Your task to perform on an android device: Go to eBay Image 0: 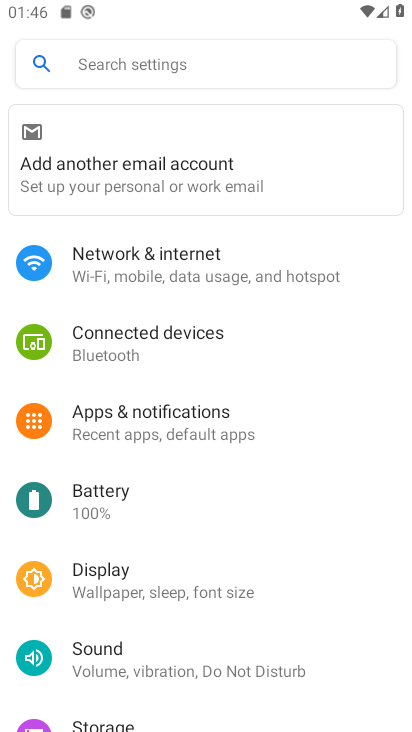
Step 0: press home button
Your task to perform on an android device: Go to eBay Image 1: 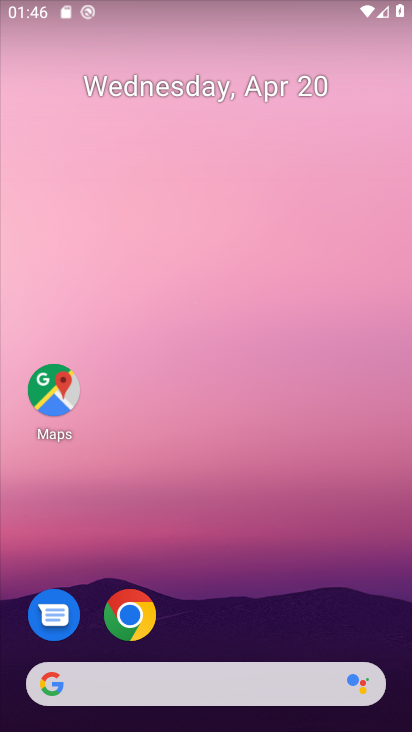
Step 1: click (122, 607)
Your task to perform on an android device: Go to eBay Image 2: 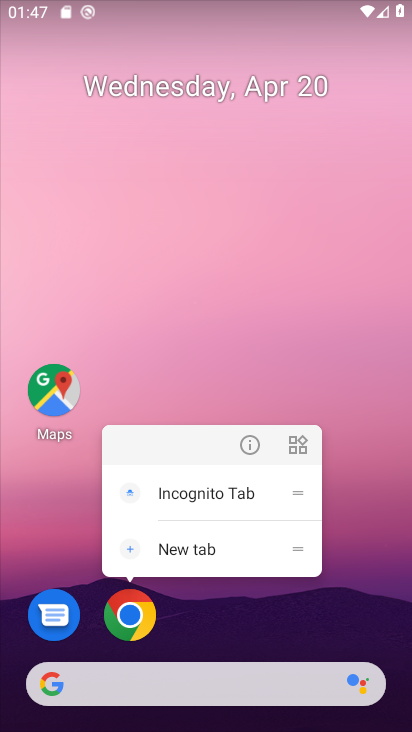
Step 2: click (131, 627)
Your task to perform on an android device: Go to eBay Image 3: 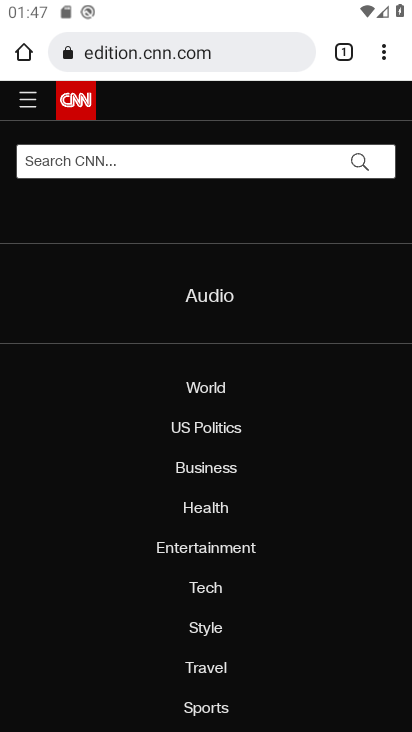
Step 3: click (295, 52)
Your task to perform on an android device: Go to eBay Image 4: 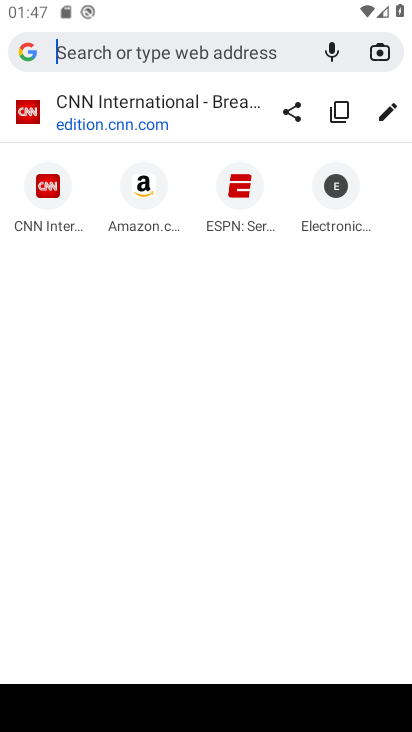
Step 4: type "eBay"
Your task to perform on an android device: Go to eBay Image 5: 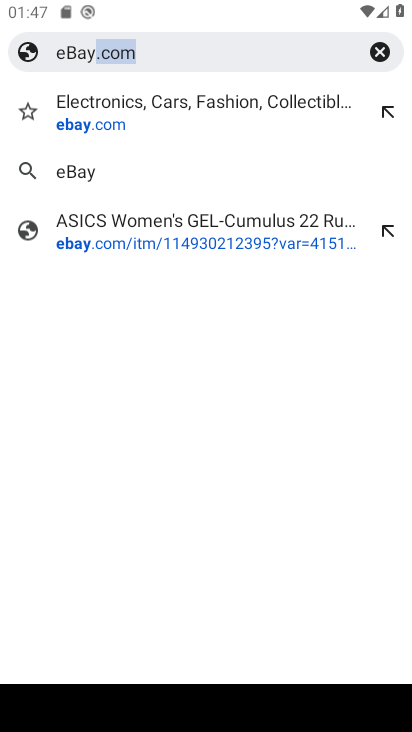
Step 5: click (93, 170)
Your task to perform on an android device: Go to eBay Image 6: 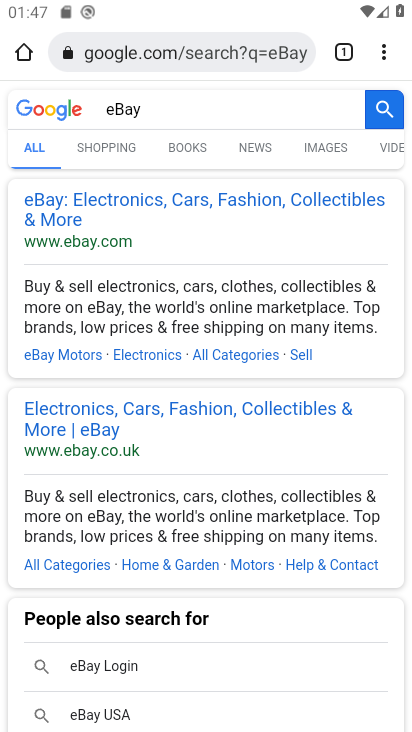
Step 6: task complete